Your task to perform on an android device: turn off sleep mode Image 0: 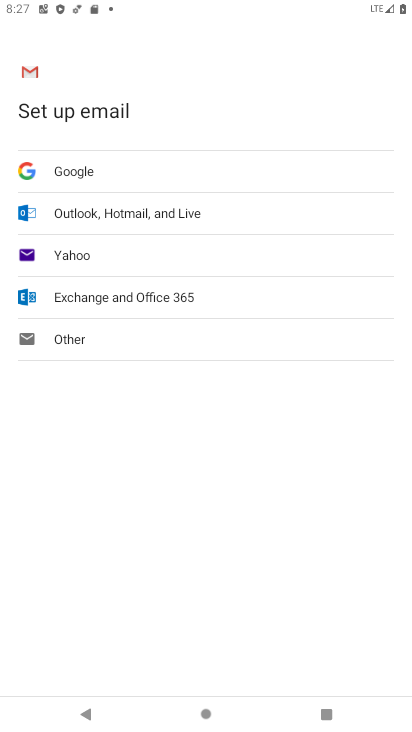
Step 0: press home button
Your task to perform on an android device: turn off sleep mode Image 1: 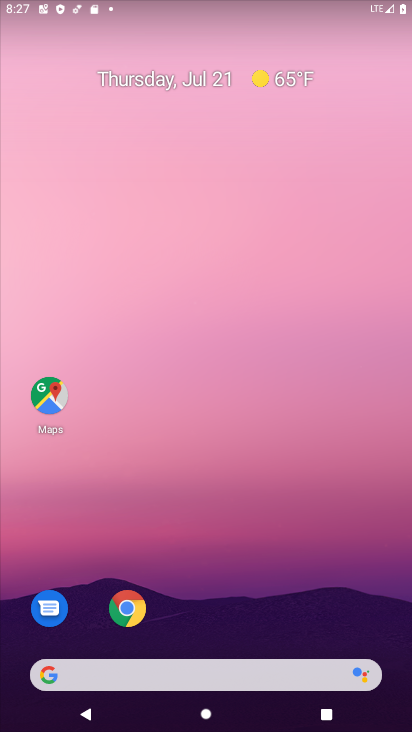
Step 1: drag from (208, 681) to (200, 253)
Your task to perform on an android device: turn off sleep mode Image 2: 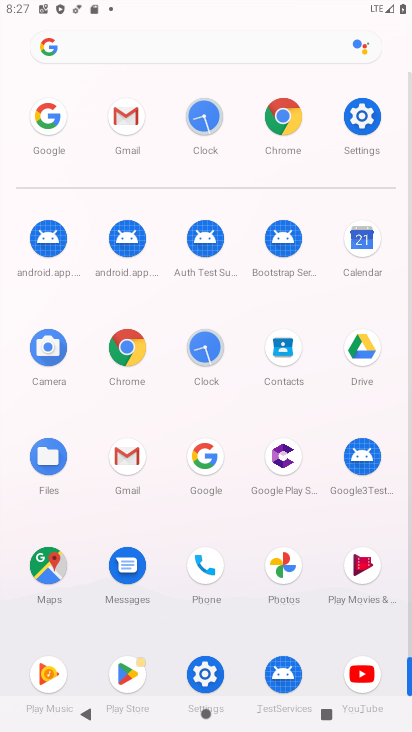
Step 2: click (363, 116)
Your task to perform on an android device: turn off sleep mode Image 3: 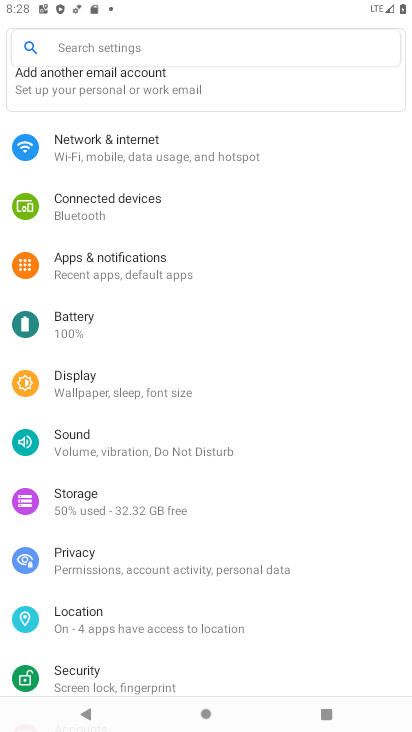
Step 3: click (119, 393)
Your task to perform on an android device: turn off sleep mode Image 4: 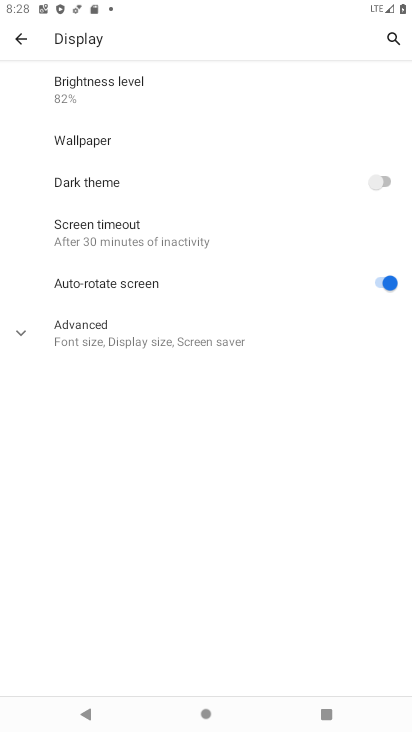
Step 4: click (176, 232)
Your task to perform on an android device: turn off sleep mode Image 5: 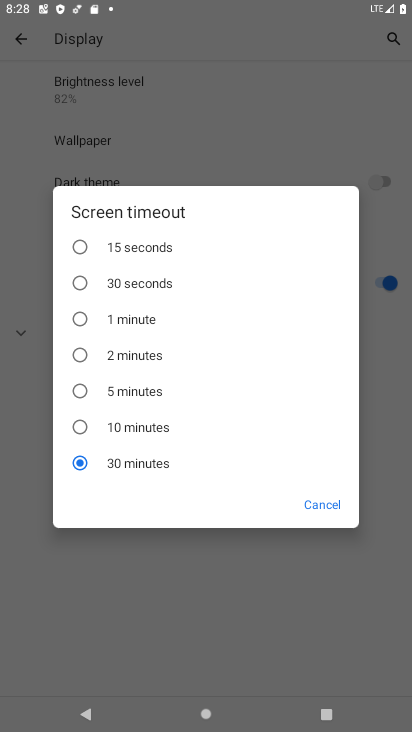
Step 5: click (324, 502)
Your task to perform on an android device: turn off sleep mode Image 6: 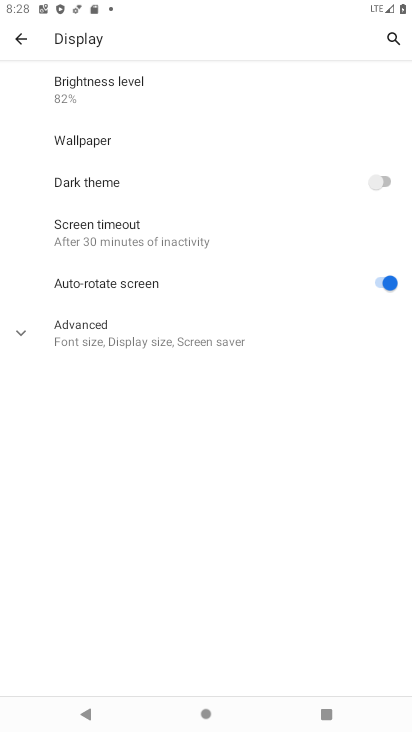
Step 6: task complete